Your task to perform on an android device: turn vacation reply on in the gmail app Image 0: 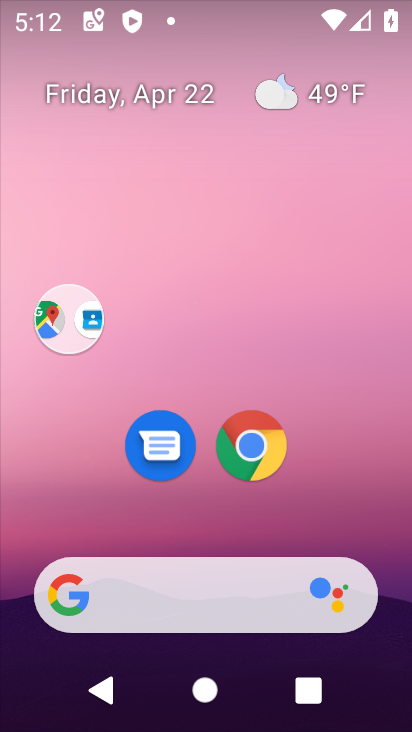
Step 0: drag from (360, 503) to (301, 125)
Your task to perform on an android device: turn vacation reply on in the gmail app Image 1: 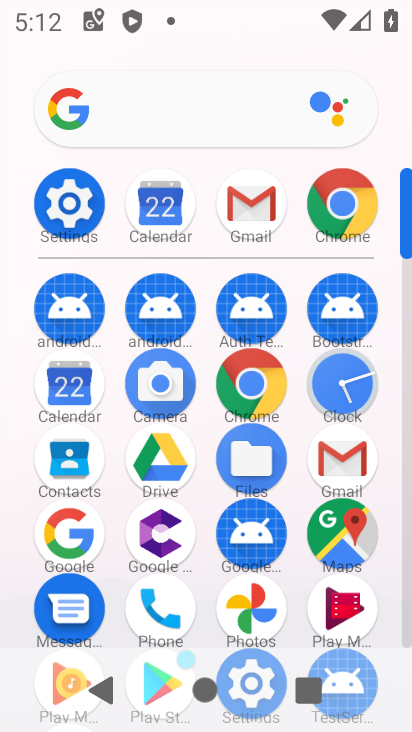
Step 1: click (324, 460)
Your task to perform on an android device: turn vacation reply on in the gmail app Image 2: 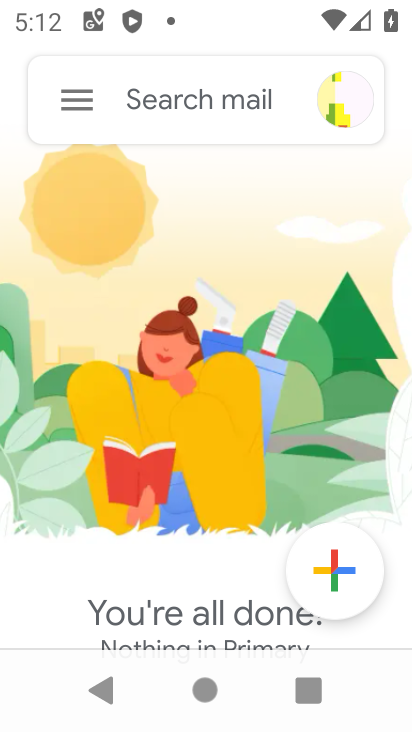
Step 2: click (68, 97)
Your task to perform on an android device: turn vacation reply on in the gmail app Image 3: 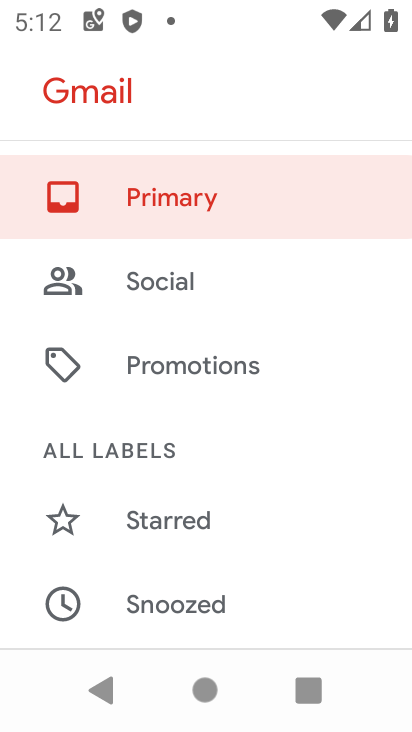
Step 3: drag from (163, 561) to (245, 190)
Your task to perform on an android device: turn vacation reply on in the gmail app Image 4: 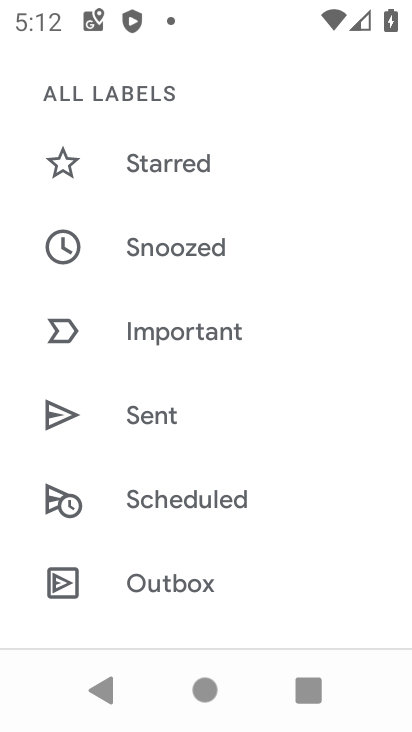
Step 4: drag from (203, 551) to (225, 178)
Your task to perform on an android device: turn vacation reply on in the gmail app Image 5: 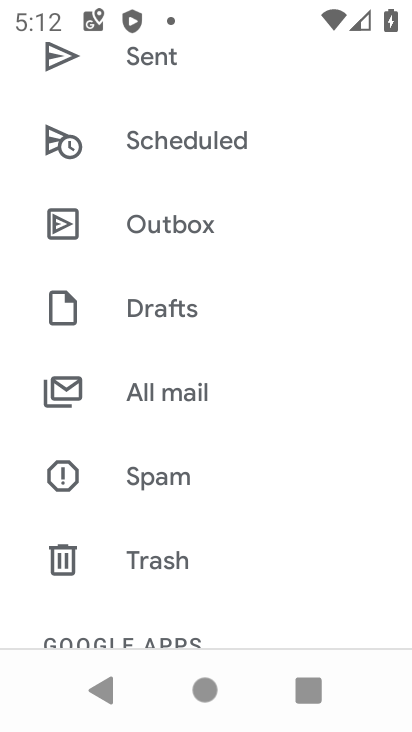
Step 5: drag from (181, 519) to (243, 231)
Your task to perform on an android device: turn vacation reply on in the gmail app Image 6: 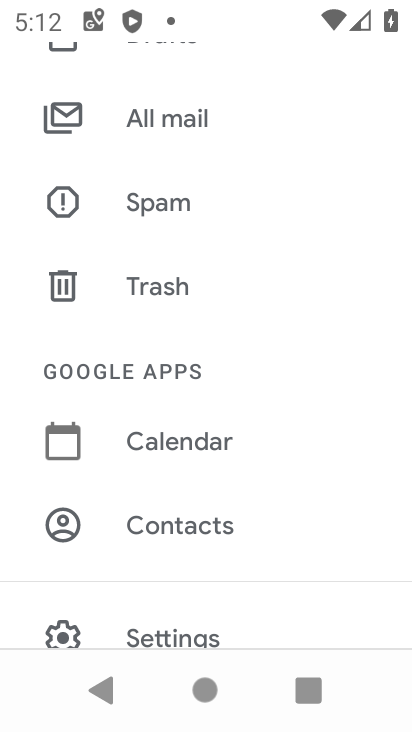
Step 6: click (165, 635)
Your task to perform on an android device: turn vacation reply on in the gmail app Image 7: 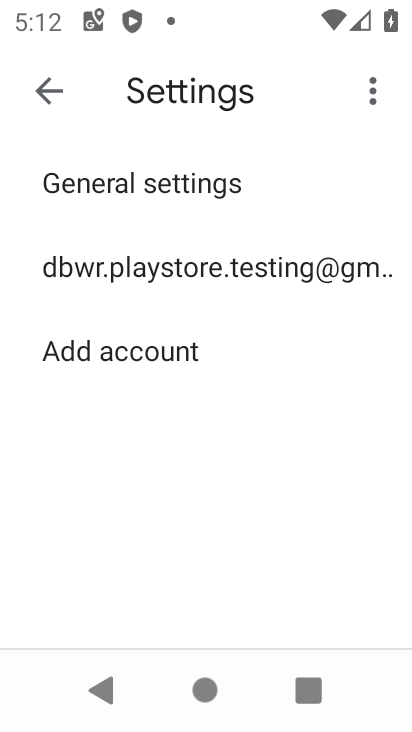
Step 7: click (244, 278)
Your task to perform on an android device: turn vacation reply on in the gmail app Image 8: 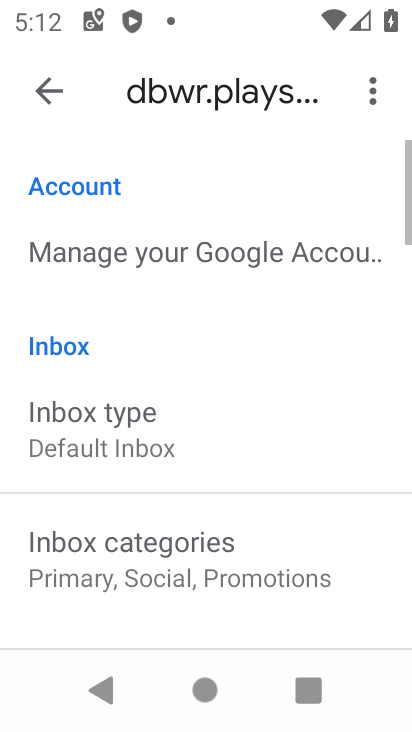
Step 8: drag from (166, 465) to (252, 201)
Your task to perform on an android device: turn vacation reply on in the gmail app Image 9: 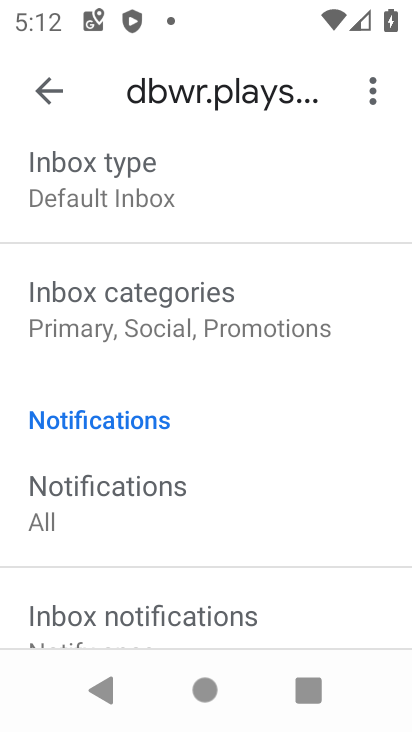
Step 9: drag from (210, 478) to (288, 56)
Your task to perform on an android device: turn vacation reply on in the gmail app Image 10: 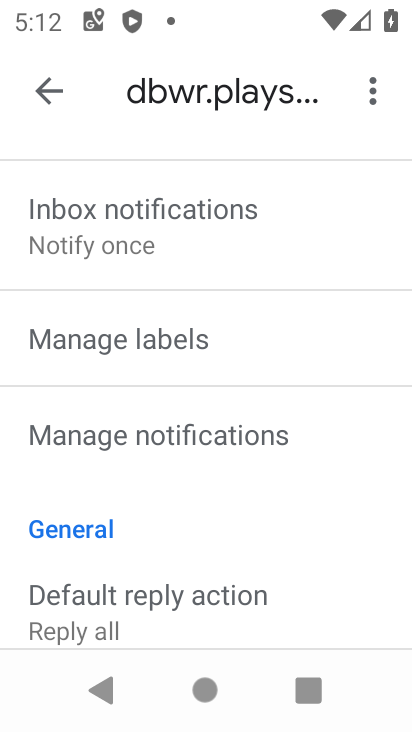
Step 10: drag from (181, 464) to (279, 7)
Your task to perform on an android device: turn vacation reply on in the gmail app Image 11: 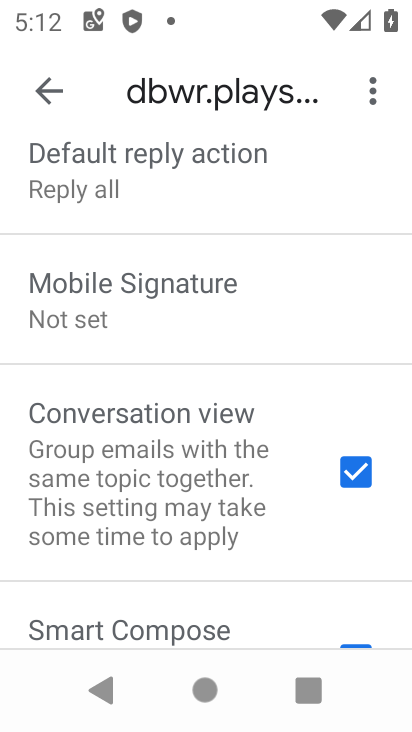
Step 11: drag from (155, 521) to (215, 80)
Your task to perform on an android device: turn vacation reply on in the gmail app Image 12: 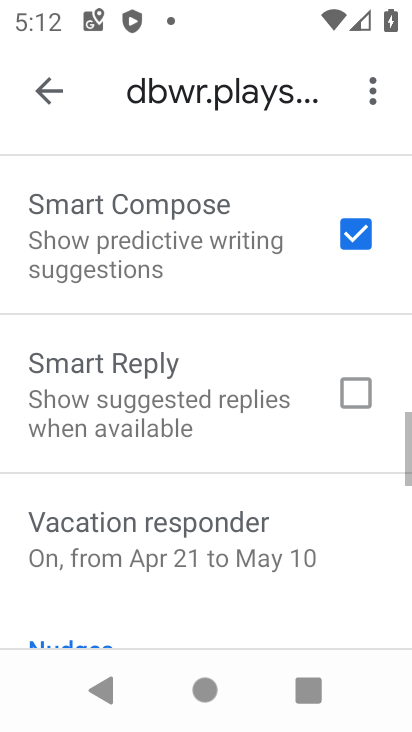
Step 12: drag from (181, 424) to (200, 263)
Your task to perform on an android device: turn vacation reply on in the gmail app Image 13: 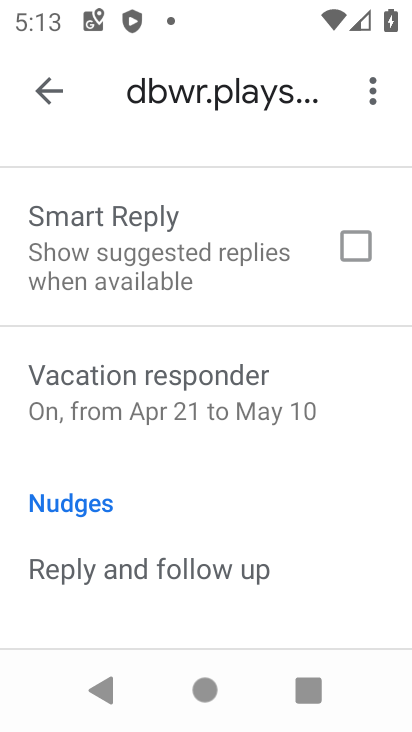
Step 13: click (195, 381)
Your task to perform on an android device: turn vacation reply on in the gmail app Image 14: 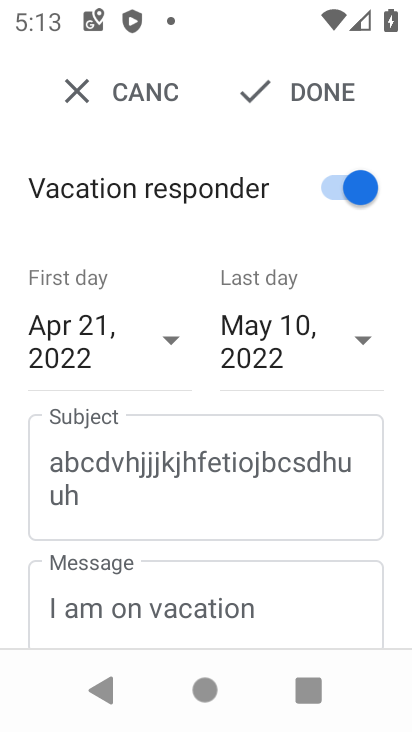
Step 14: task complete